Your task to perform on an android device: Open wifi settings Image 0: 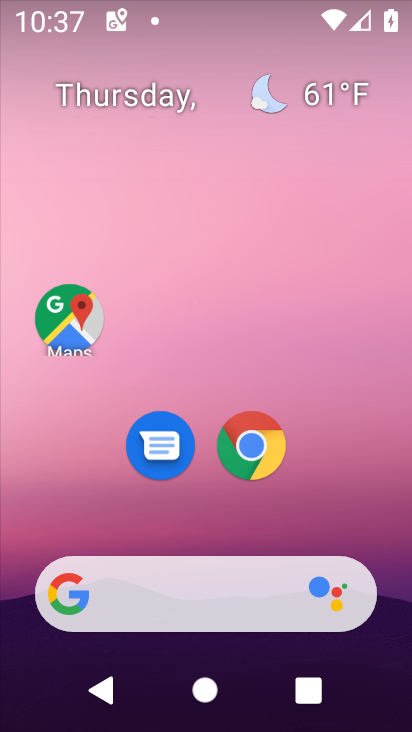
Step 0: drag from (193, 525) to (207, 9)
Your task to perform on an android device: Open wifi settings Image 1: 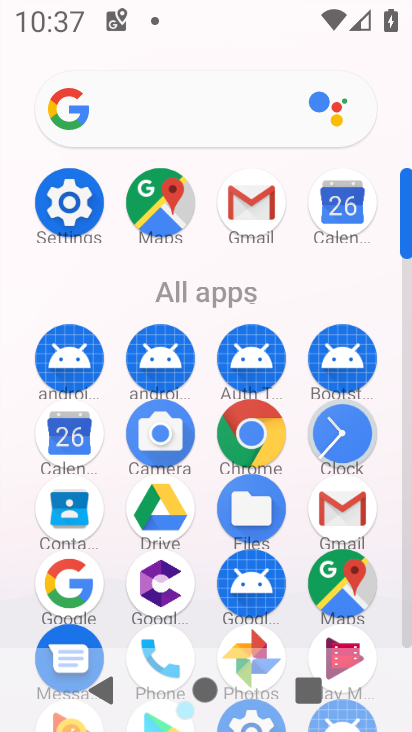
Step 1: click (80, 209)
Your task to perform on an android device: Open wifi settings Image 2: 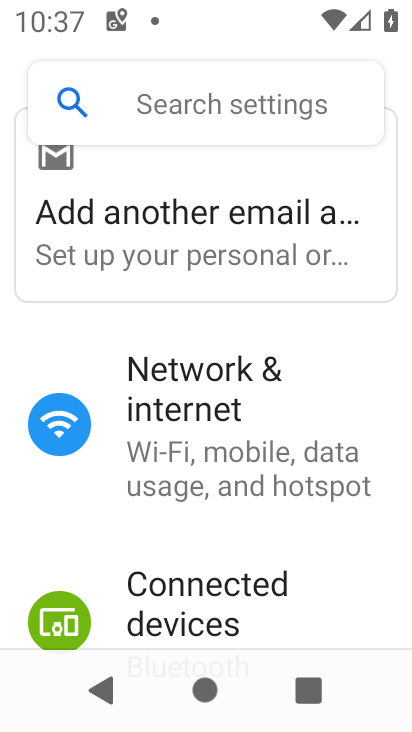
Step 2: click (174, 458)
Your task to perform on an android device: Open wifi settings Image 3: 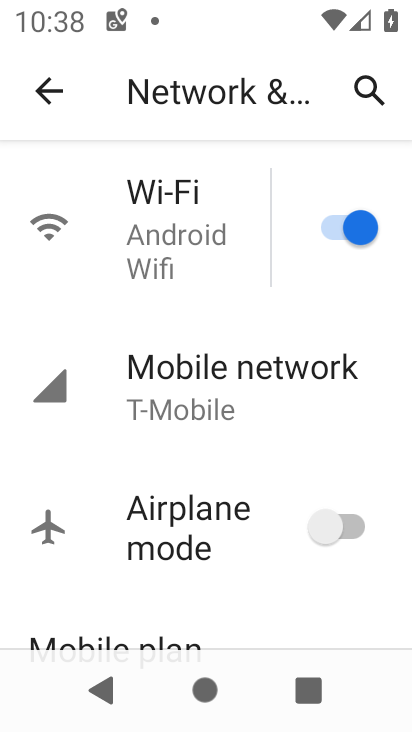
Step 3: click (175, 231)
Your task to perform on an android device: Open wifi settings Image 4: 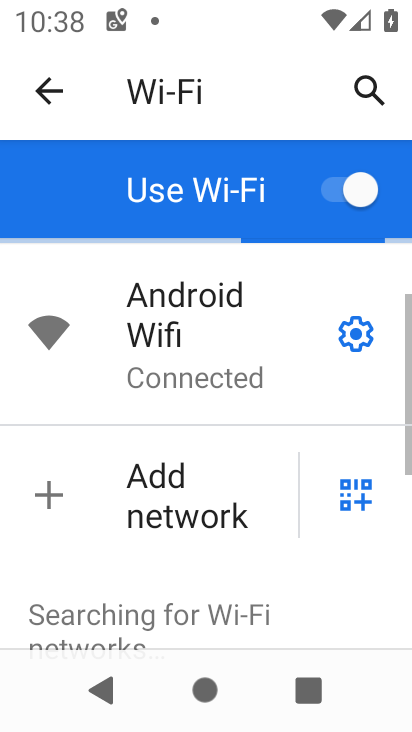
Step 4: task complete